Your task to perform on an android device: Open settings Image 0: 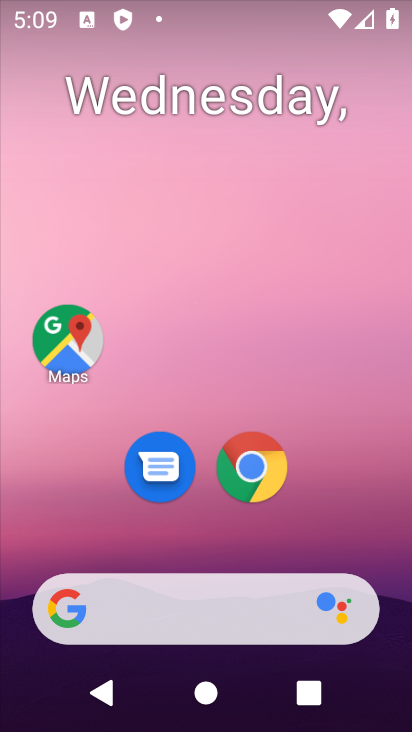
Step 0: drag from (322, 398) to (276, 22)
Your task to perform on an android device: Open settings Image 1: 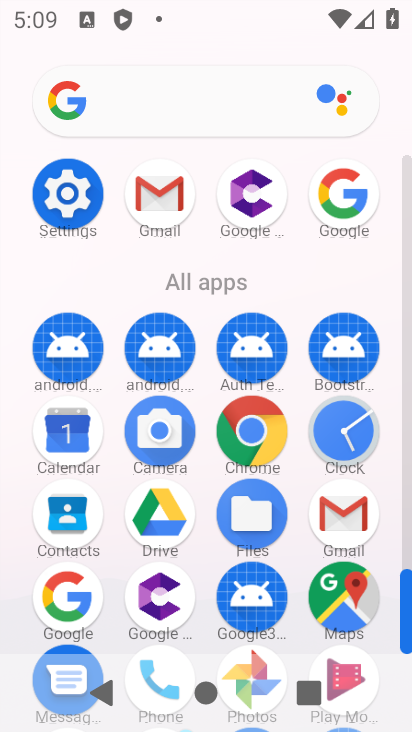
Step 1: click (73, 225)
Your task to perform on an android device: Open settings Image 2: 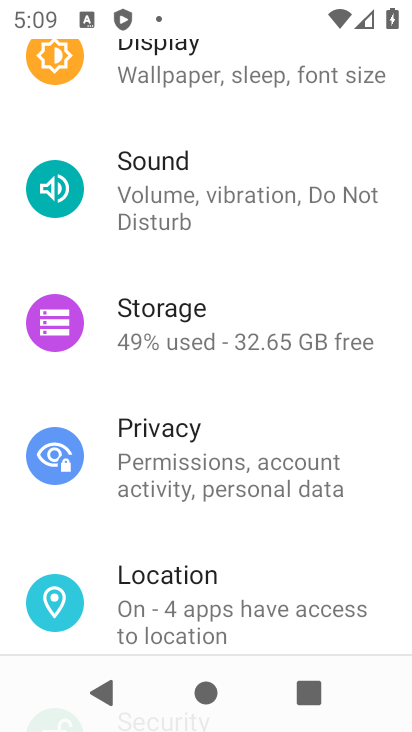
Step 2: task complete